Your task to perform on an android device: Go to calendar. Show me events next week Image 0: 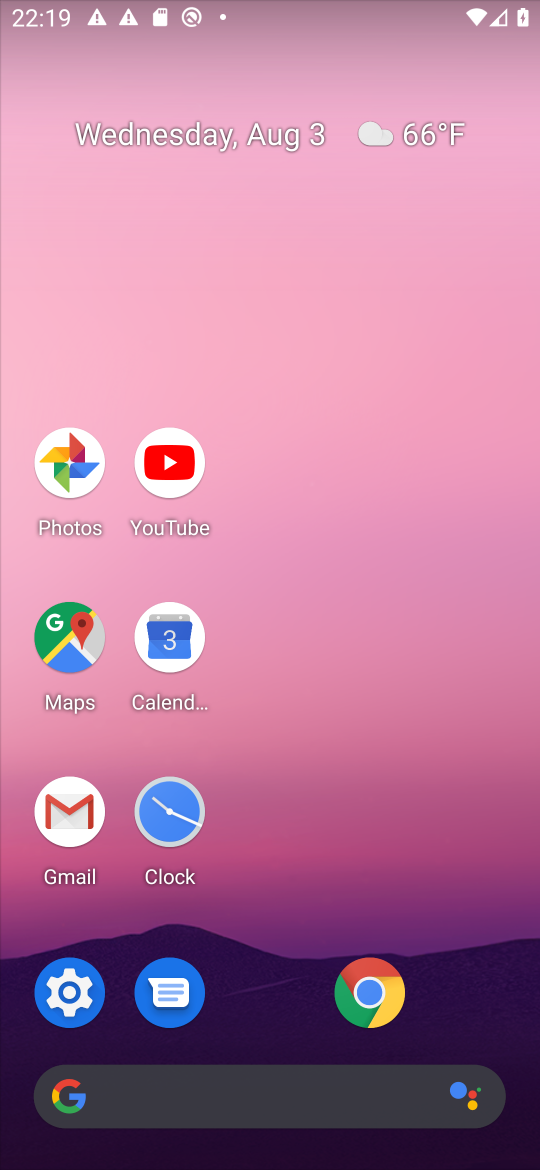
Step 0: click (160, 634)
Your task to perform on an android device: Go to calendar. Show me events next week Image 1: 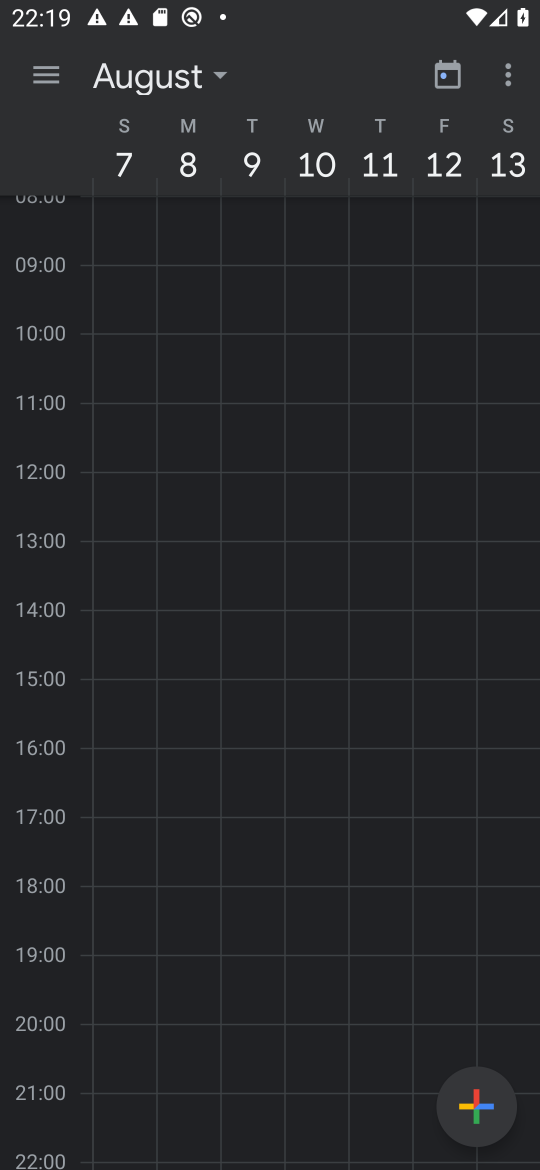
Step 1: click (214, 86)
Your task to perform on an android device: Go to calendar. Show me events next week Image 2: 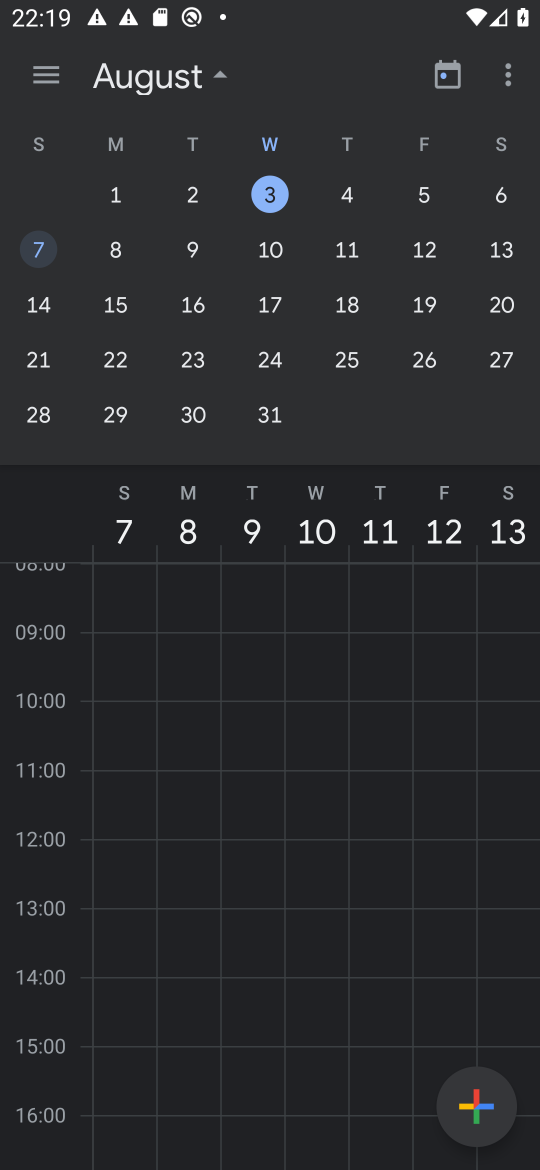
Step 2: click (47, 262)
Your task to perform on an android device: Go to calendar. Show me events next week Image 3: 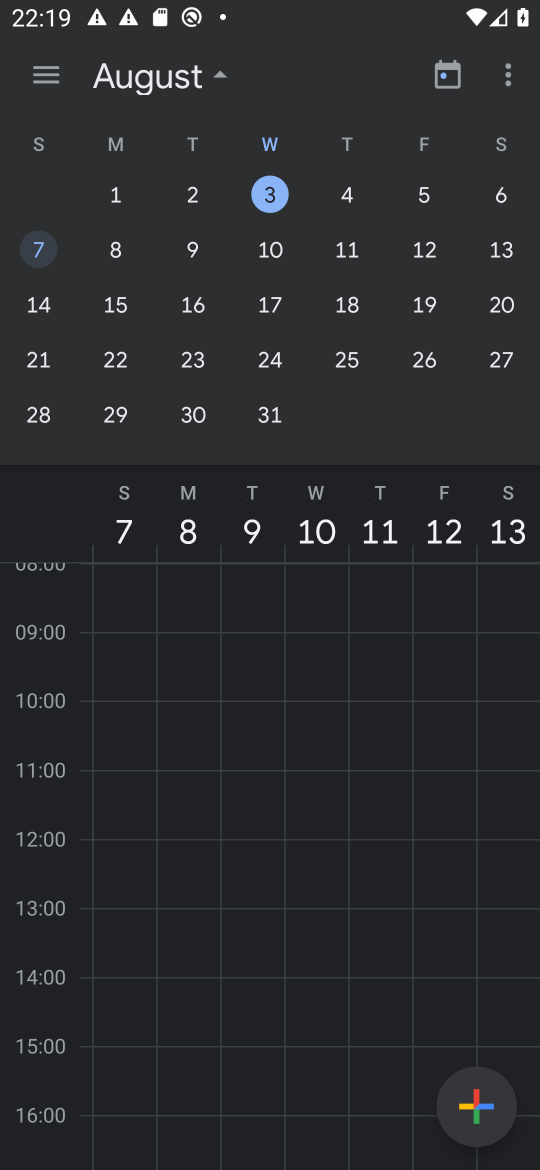
Step 3: task complete